Your task to perform on an android device: turn on priority inbox in the gmail app Image 0: 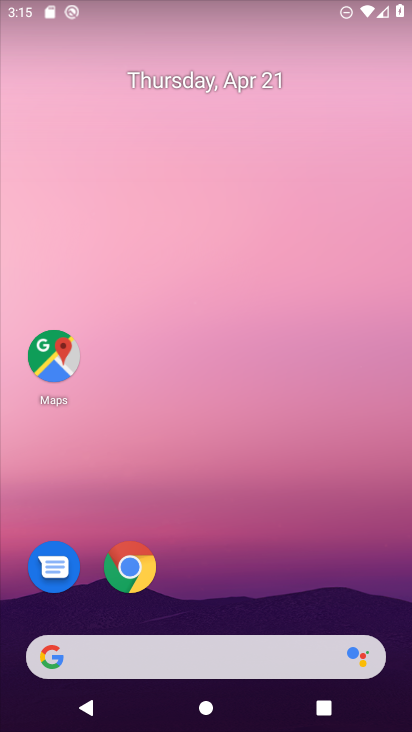
Step 0: drag from (257, 585) to (251, 35)
Your task to perform on an android device: turn on priority inbox in the gmail app Image 1: 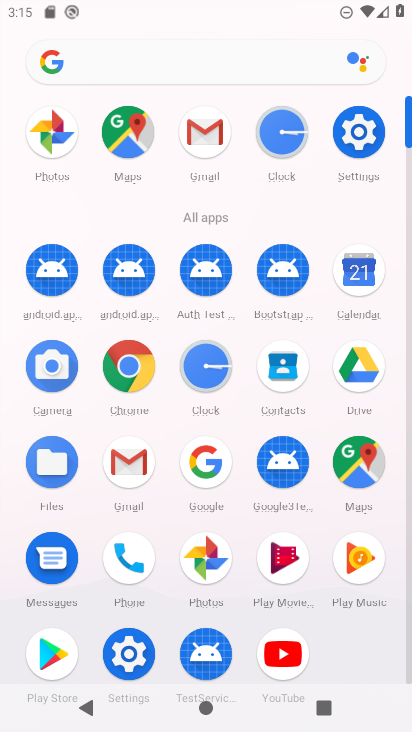
Step 1: click (143, 452)
Your task to perform on an android device: turn on priority inbox in the gmail app Image 2: 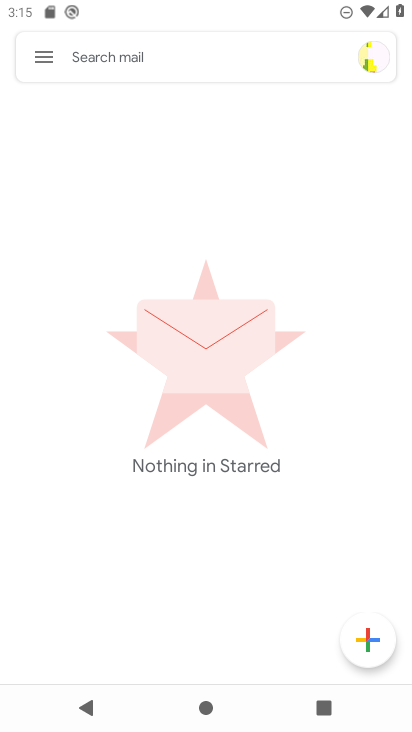
Step 2: click (51, 50)
Your task to perform on an android device: turn on priority inbox in the gmail app Image 3: 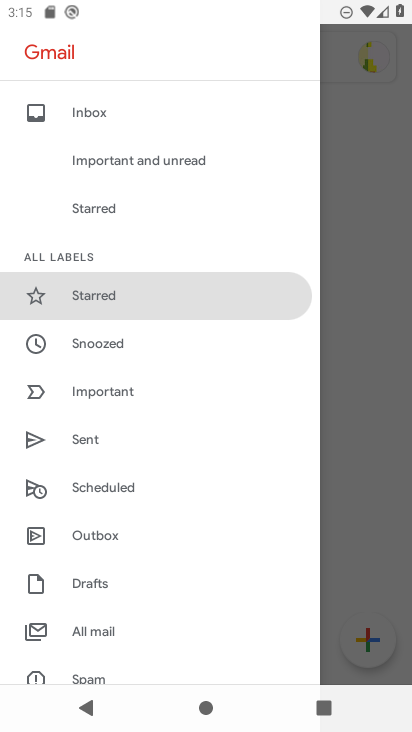
Step 3: drag from (217, 612) to (217, 212)
Your task to perform on an android device: turn on priority inbox in the gmail app Image 4: 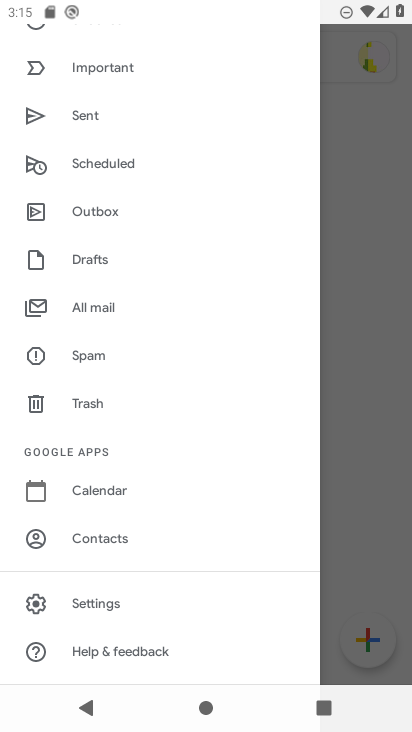
Step 4: click (123, 594)
Your task to perform on an android device: turn on priority inbox in the gmail app Image 5: 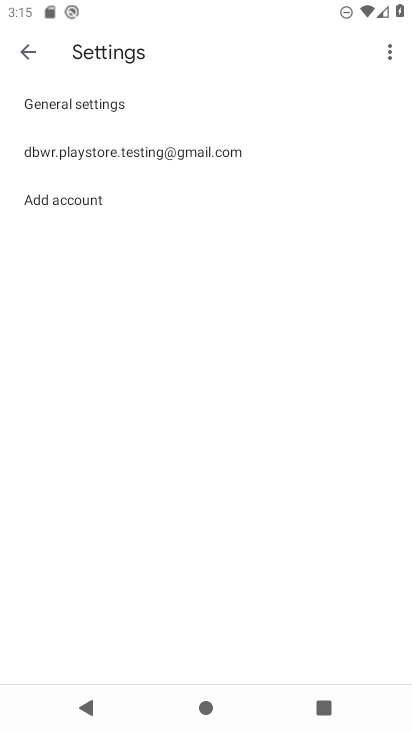
Step 5: click (54, 154)
Your task to perform on an android device: turn on priority inbox in the gmail app Image 6: 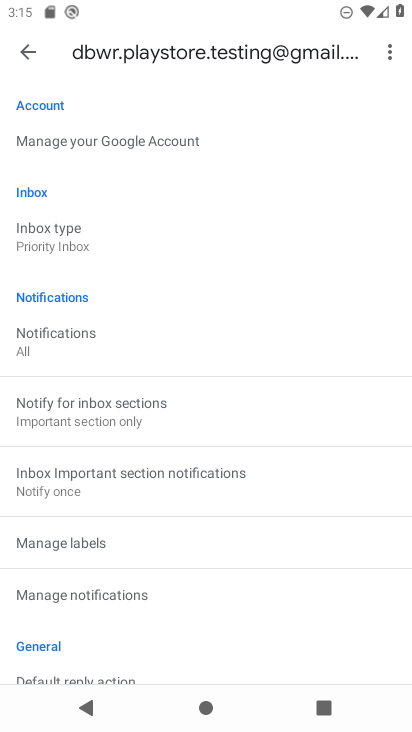
Step 6: task complete